Your task to perform on an android device: open chrome privacy settings Image 0: 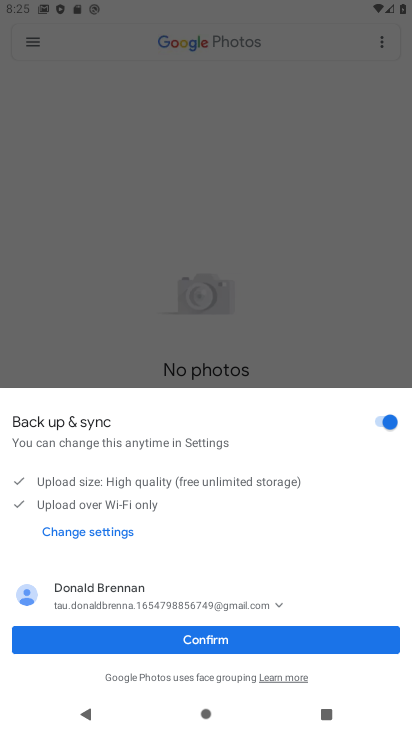
Step 0: press home button
Your task to perform on an android device: open chrome privacy settings Image 1: 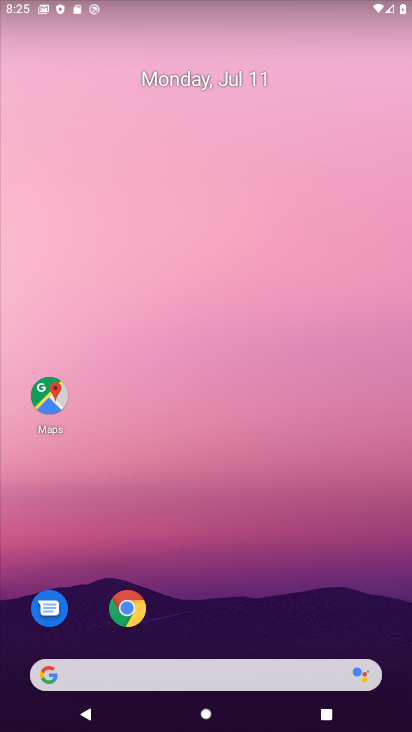
Step 1: click (125, 608)
Your task to perform on an android device: open chrome privacy settings Image 2: 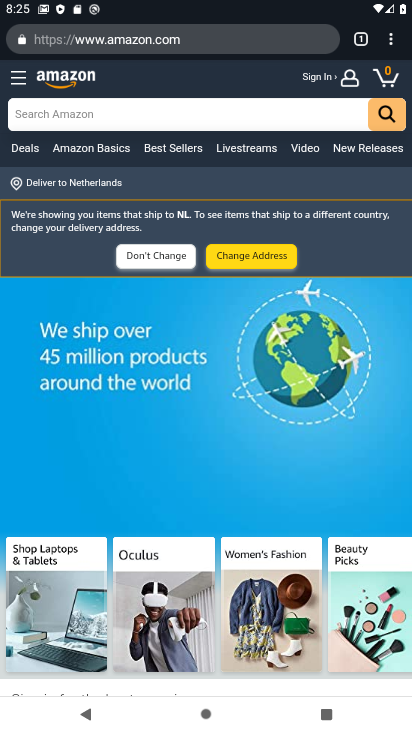
Step 2: click (398, 43)
Your task to perform on an android device: open chrome privacy settings Image 3: 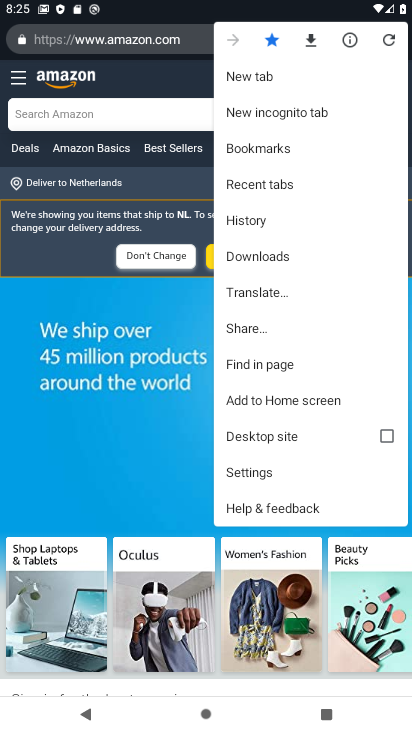
Step 3: click (262, 481)
Your task to perform on an android device: open chrome privacy settings Image 4: 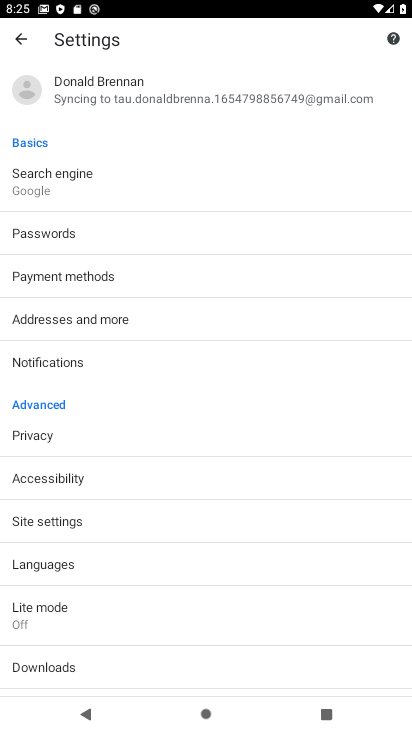
Step 4: click (171, 418)
Your task to perform on an android device: open chrome privacy settings Image 5: 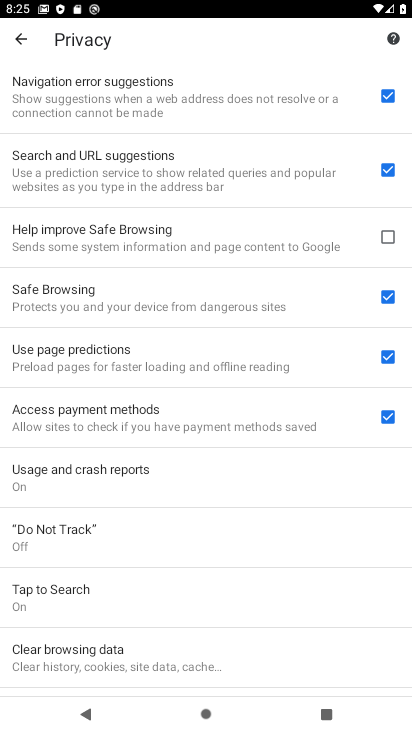
Step 5: task complete